Your task to perform on an android device: turn on wifi Image 0: 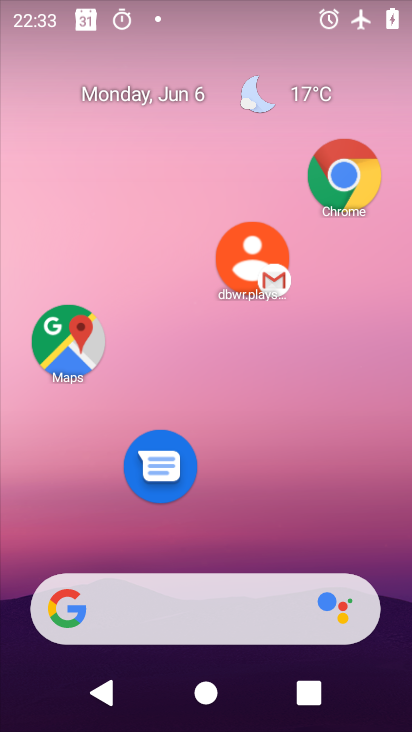
Step 0: drag from (193, 531) to (192, 102)
Your task to perform on an android device: turn on wifi Image 1: 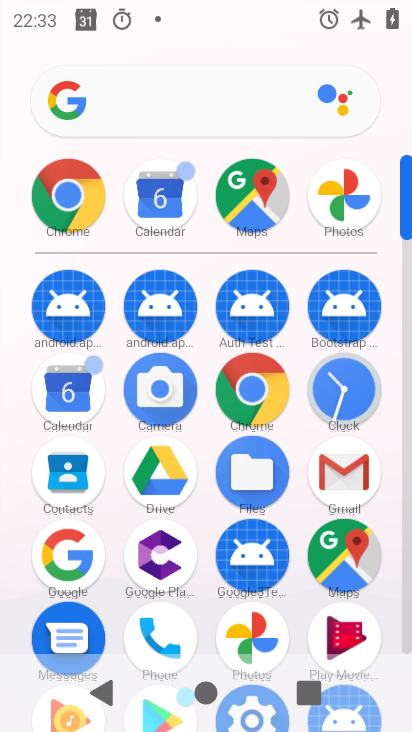
Step 1: drag from (197, 594) to (225, 192)
Your task to perform on an android device: turn on wifi Image 2: 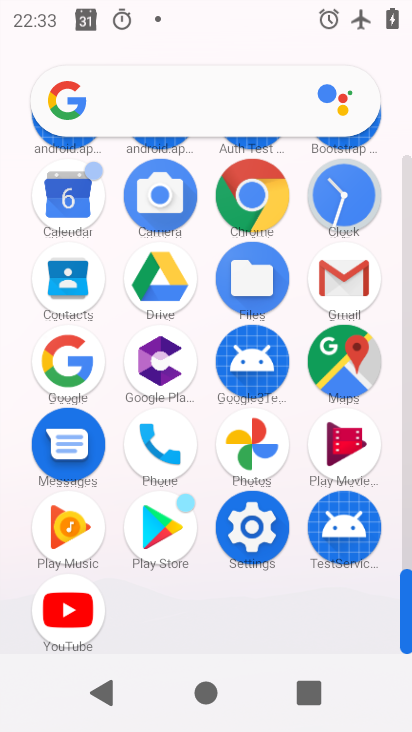
Step 2: click (251, 530)
Your task to perform on an android device: turn on wifi Image 3: 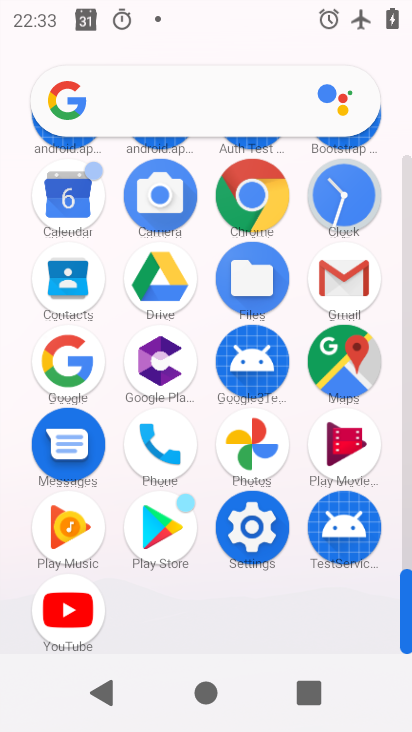
Step 3: click (251, 530)
Your task to perform on an android device: turn on wifi Image 4: 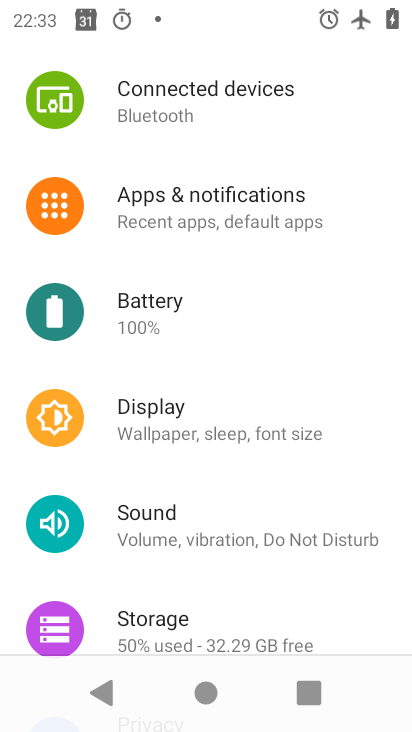
Step 4: drag from (210, 228) to (312, 729)
Your task to perform on an android device: turn on wifi Image 5: 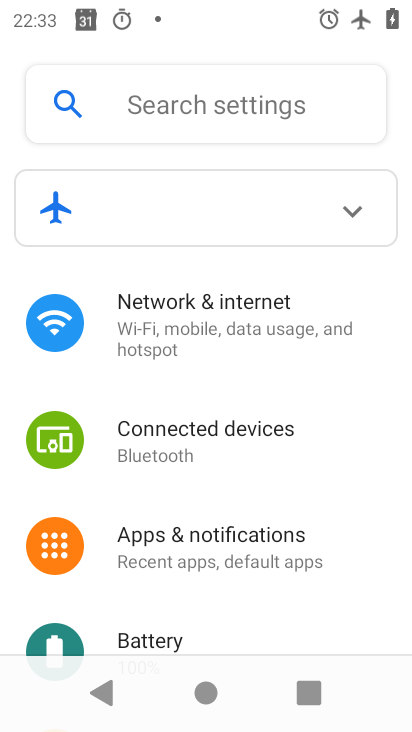
Step 5: click (194, 334)
Your task to perform on an android device: turn on wifi Image 6: 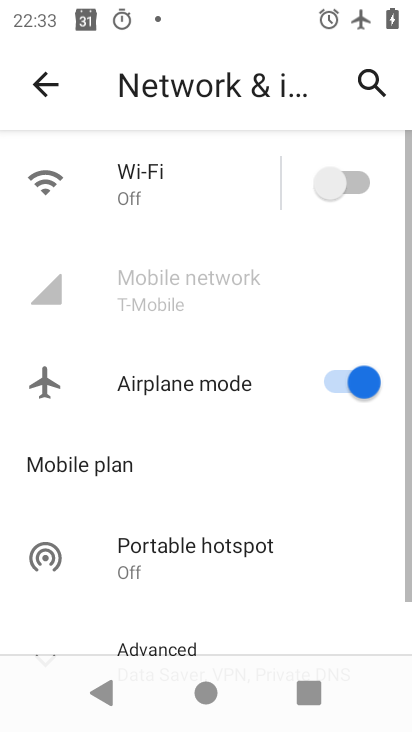
Step 6: click (146, 191)
Your task to perform on an android device: turn on wifi Image 7: 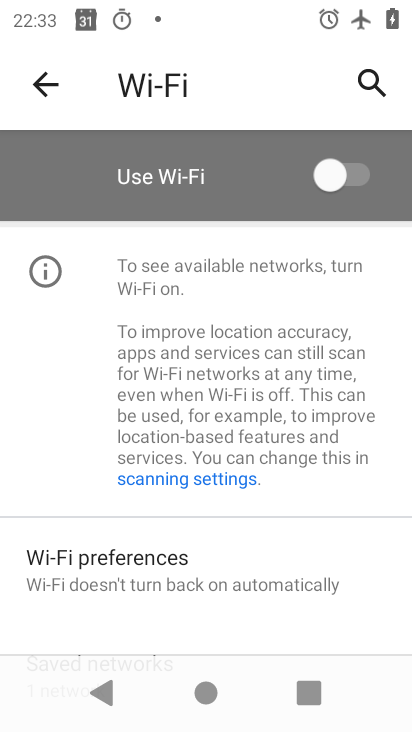
Step 7: click (331, 188)
Your task to perform on an android device: turn on wifi Image 8: 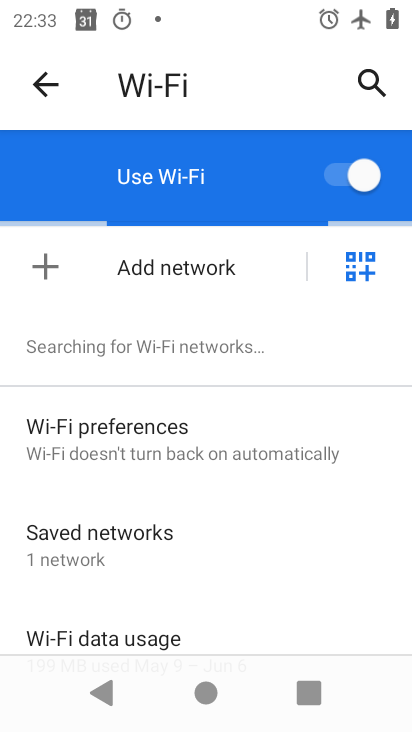
Step 8: task complete